Your task to perform on an android device: Open the Play Movies app and select the watchlist tab. Image 0: 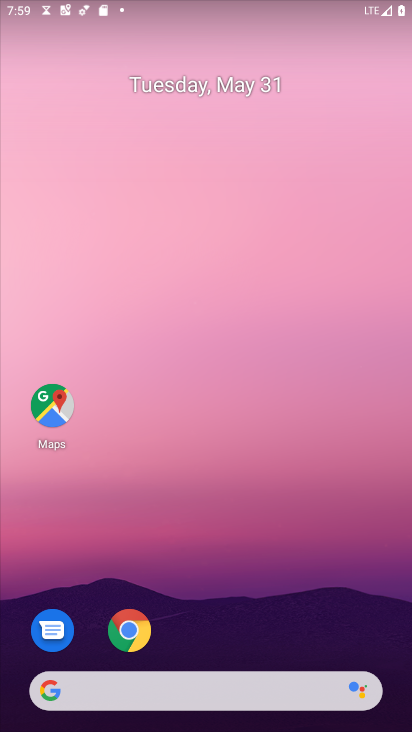
Step 0: drag from (244, 588) to (207, 127)
Your task to perform on an android device: Open the Play Movies app and select the watchlist tab. Image 1: 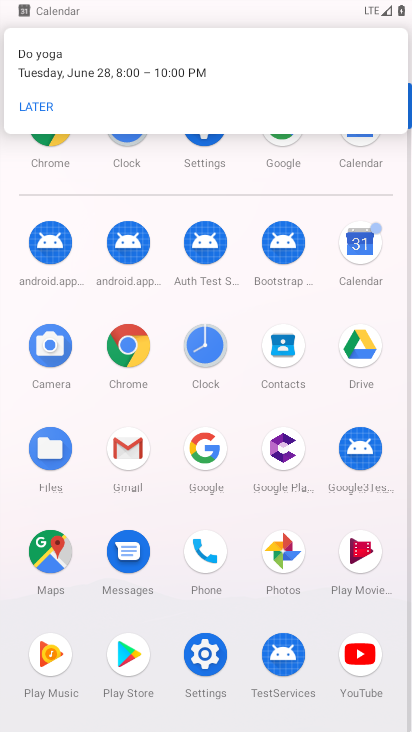
Step 1: click (361, 558)
Your task to perform on an android device: Open the Play Movies app and select the watchlist tab. Image 2: 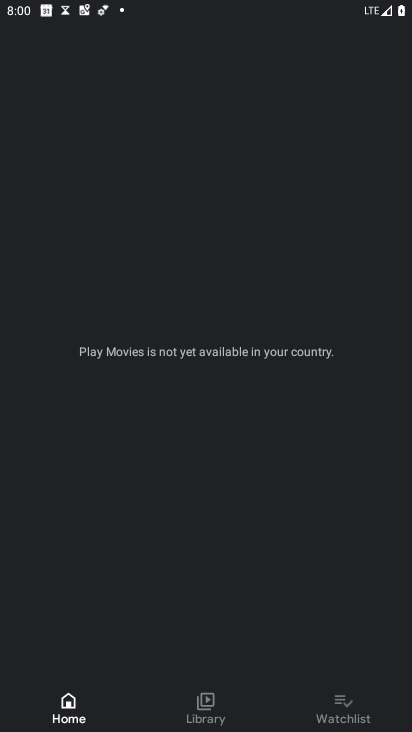
Step 2: click (344, 699)
Your task to perform on an android device: Open the Play Movies app and select the watchlist tab. Image 3: 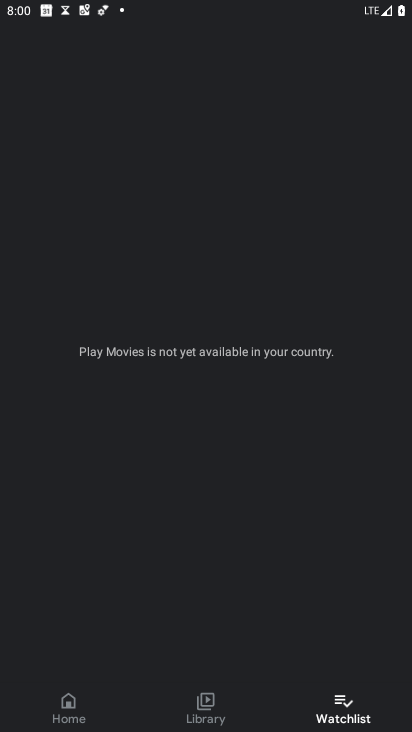
Step 3: task complete